Your task to perform on an android device: Go to CNN.com Image 0: 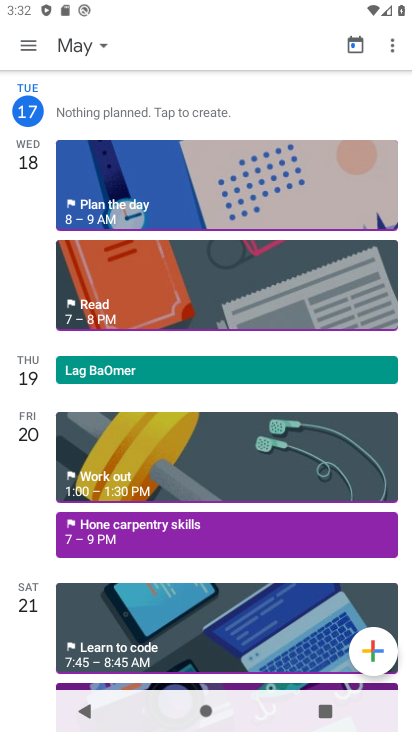
Step 0: press back button
Your task to perform on an android device: Go to CNN.com Image 1: 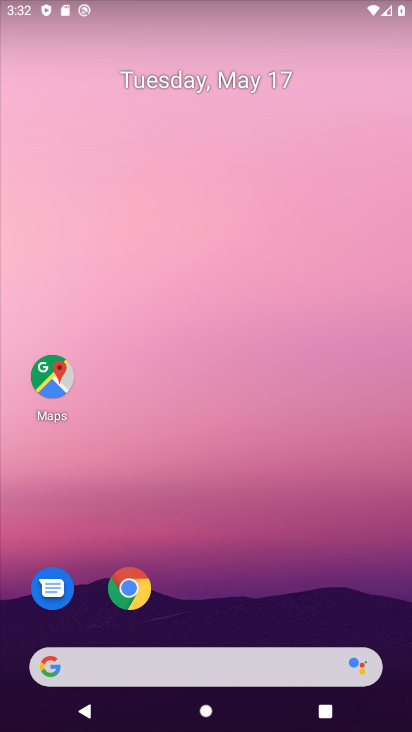
Step 1: click (129, 587)
Your task to perform on an android device: Go to CNN.com Image 2: 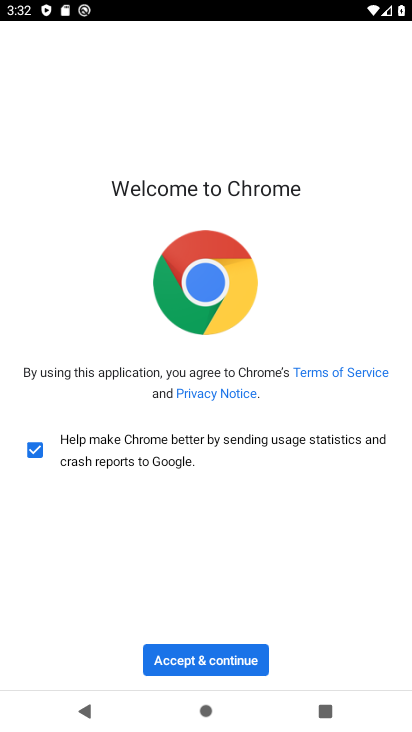
Step 2: click (199, 658)
Your task to perform on an android device: Go to CNN.com Image 3: 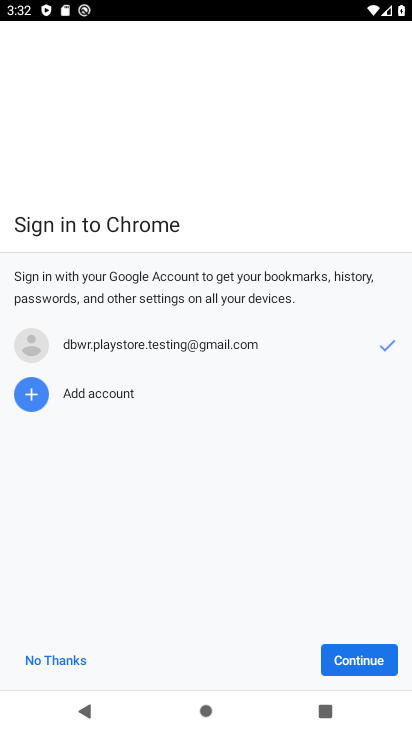
Step 3: click (362, 660)
Your task to perform on an android device: Go to CNN.com Image 4: 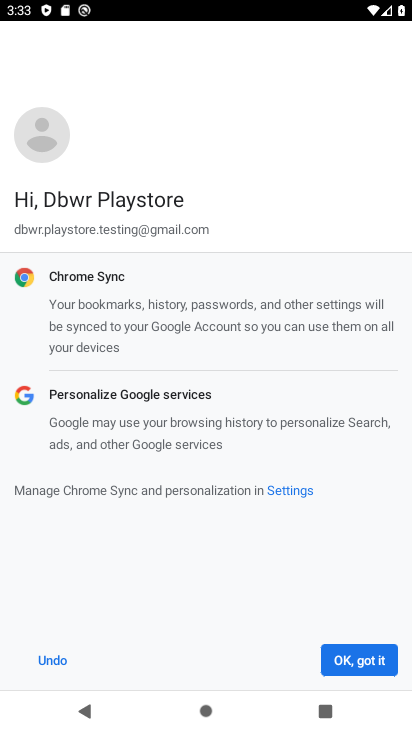
Step 4: click (362, 660)
Your task to perform on an android device: Go to CNN.com Image 5: 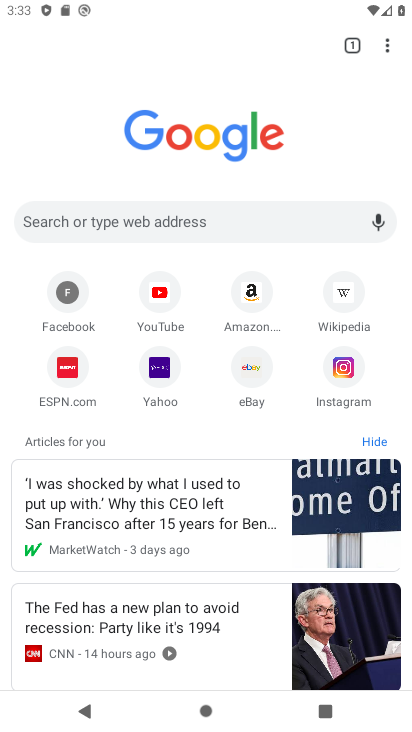
Step 5: click (174, 215)
Your task to perform on an android device: Go to CNN.com Image 6: 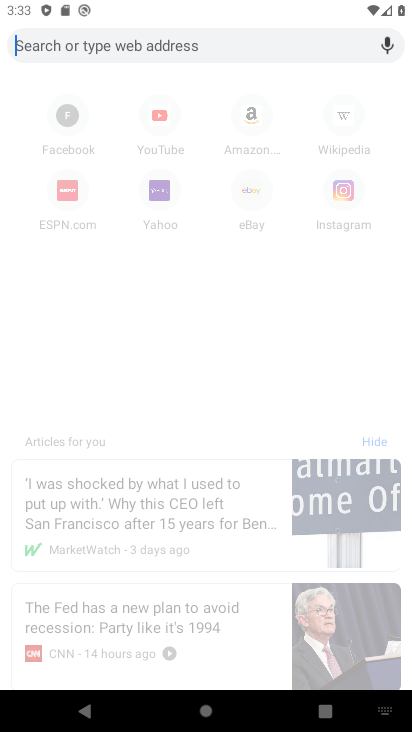
Step 6: type "CNN.com"
Your task to perform on an android device: Go to CNN.com Image 7: 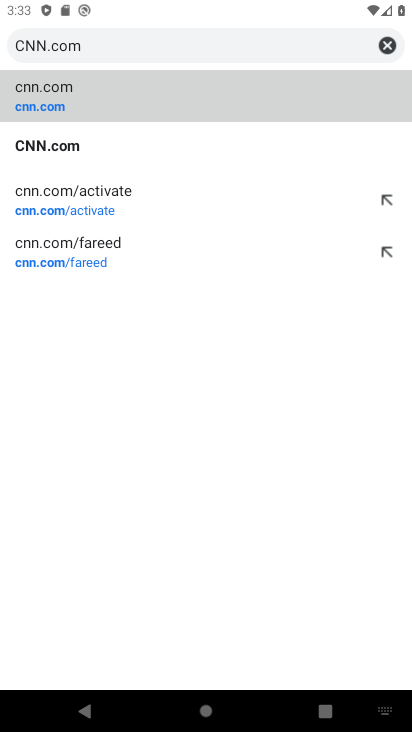
Step 7: click (56, 143)
Your task to perform on an android device: Go to CNN.com Image 8: 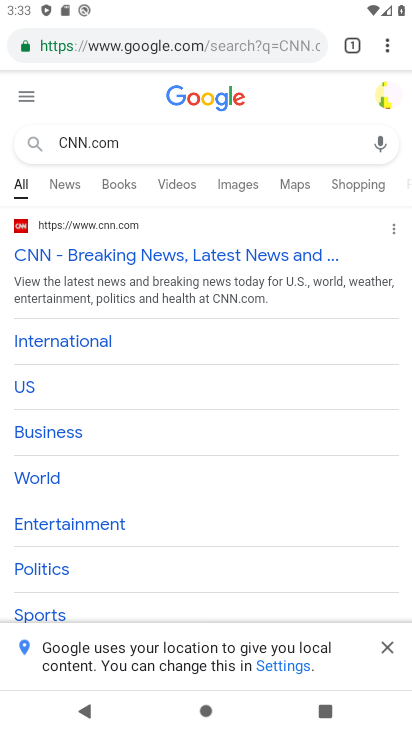
Step 8: click (100, 253)
Your task to perform on an android device: Go to CNN.com Image 9: 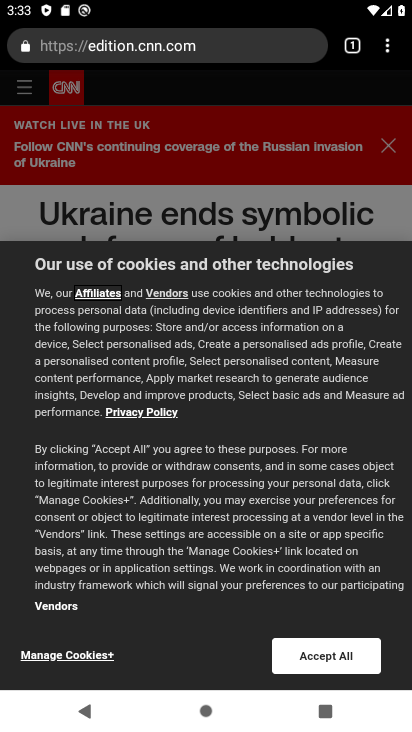
Step 9: click (315, 657)
Your task to perform on an android device: Go to CNN.com Image 10: 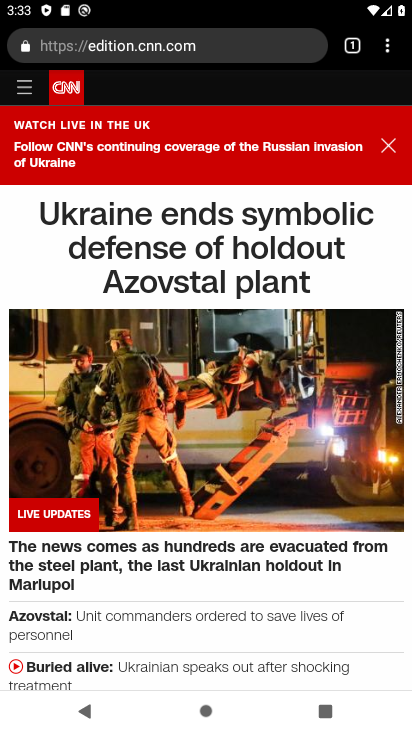
Step 10: task complete